Your task to perform on an android device: Search for pizza restaurants on Maps Image 0: 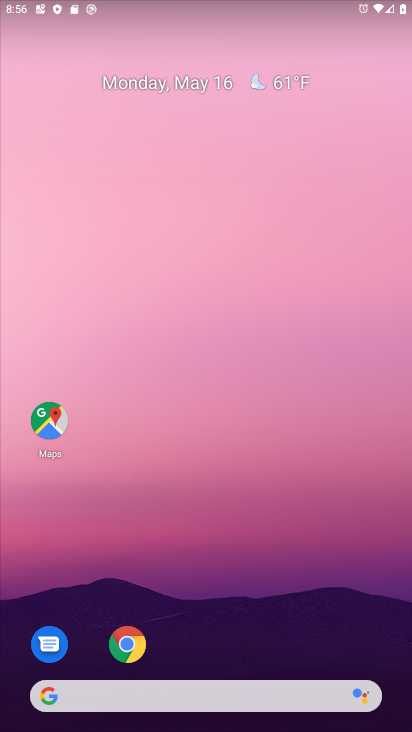
Step 0: click (54, 419)
Your task to perform on an android device: Search for pizza restaurants on Maps Image 1: 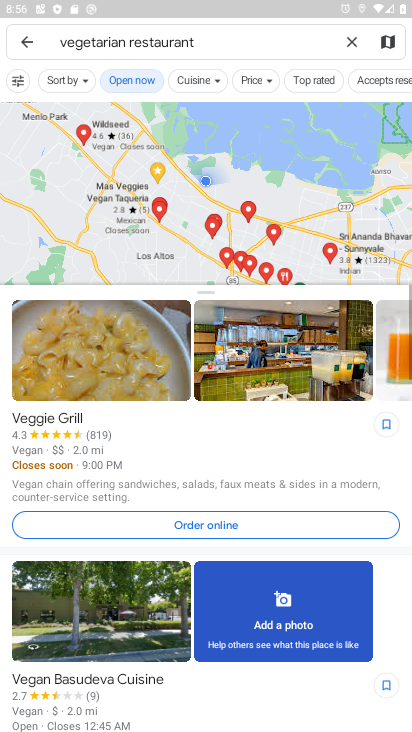
Step 1: click (347, 41)
Your task to perform on an android device: Search for pizza restaurants on Maps Image 2: 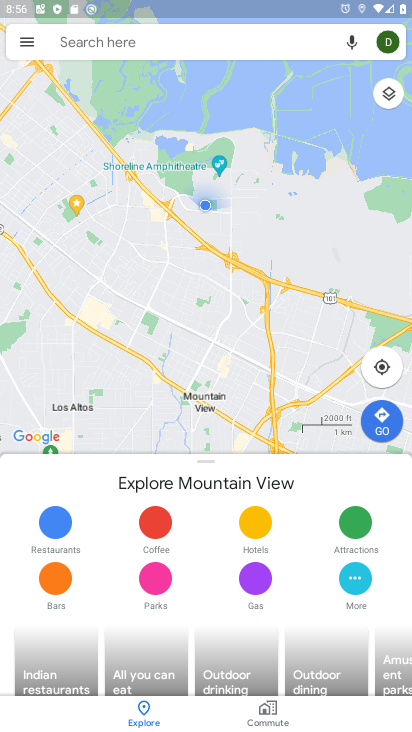
Step 2: click (201, 42)
Your task to perform on an android device: Search for pizza restaurants on Maps Image 3: 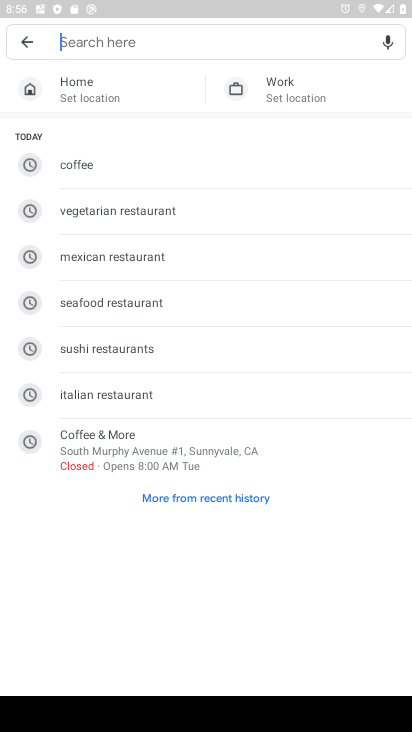
Step 3: type "pizza restaurents"
Your task to perform on an android device: Search for pizza restaurants on Maps Image 4: 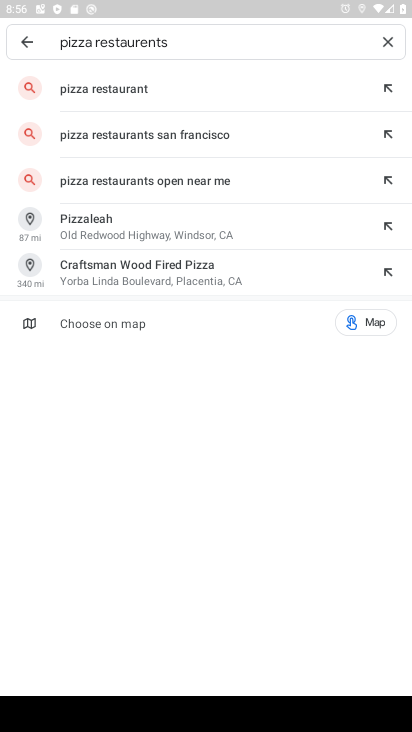
Step 4: click (132, 89)
Your task to perform on an android device: Search for pizza restaurants on Maps Image 5: 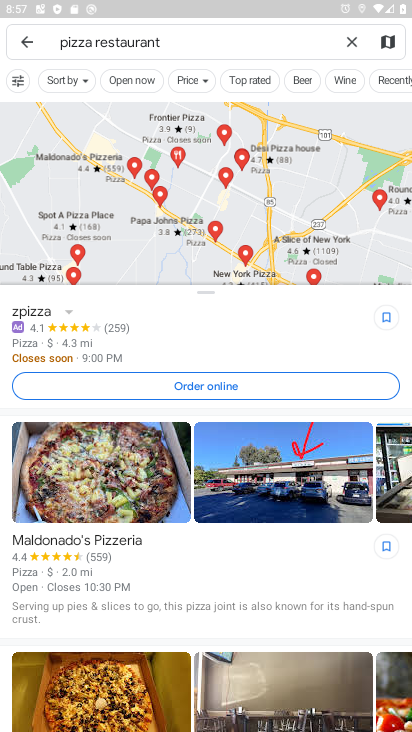
Step 5: task complete